Your task to perform on an android device: turn on translation in the chrome app Image 0: 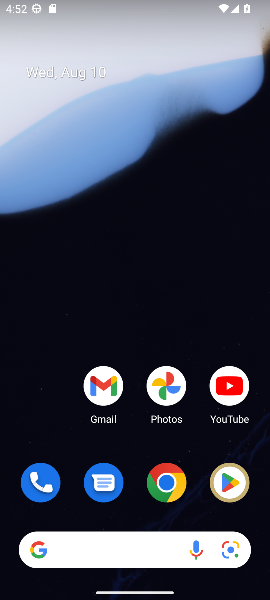
Step 0: click (166, 480)
Your task to perform on an android device: turn on translation in the chrome app Image 1: 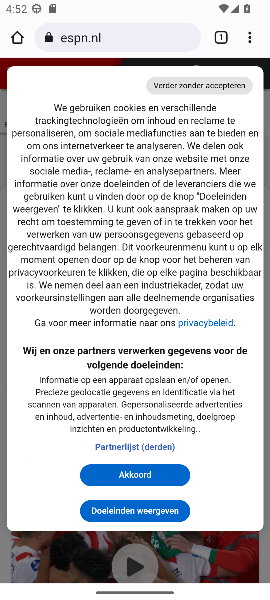
Step 1: click (247, 31)
Your task to perform on an android device: turn on translation in the chrome app Image 2: 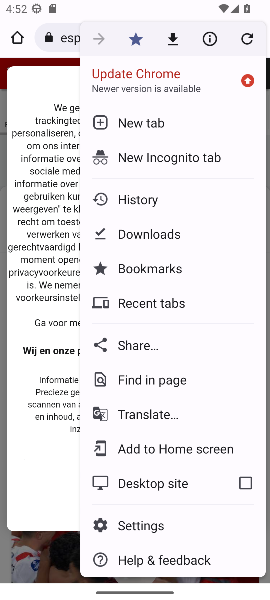
Step 2: click (156, 527)
Your task to perform on an android device: turn on translation in the chrome app Image 3: 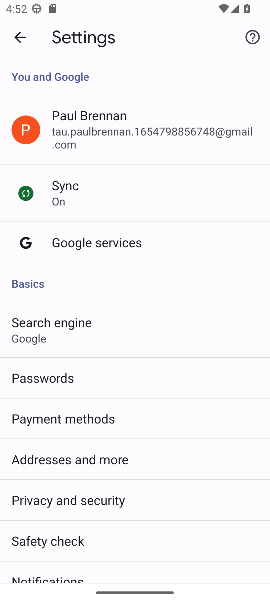
Step 3: drag from (168, 490) to (217, 1)
Your task to perform on an android device: turn on translation in the chrome app Image 4: 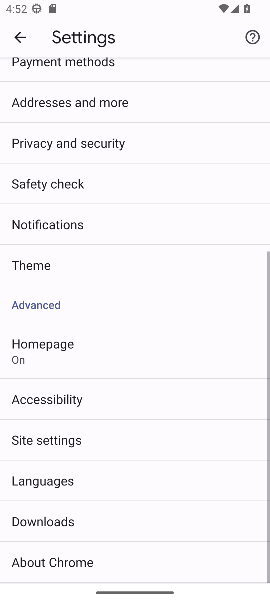
Step 4: click (145, 485)
Your task to perform on an android device: turn on translation in the chrome app Image 5: 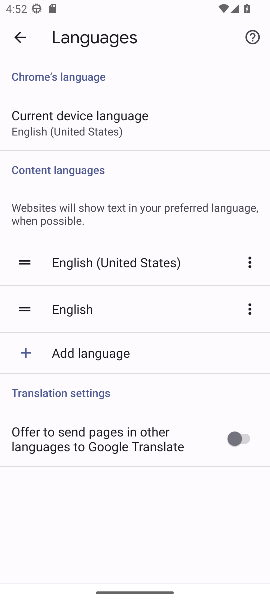
Step 5: click (241, 435)
Your task to perform on an android device: turn on translation in the chrome app Image 6: 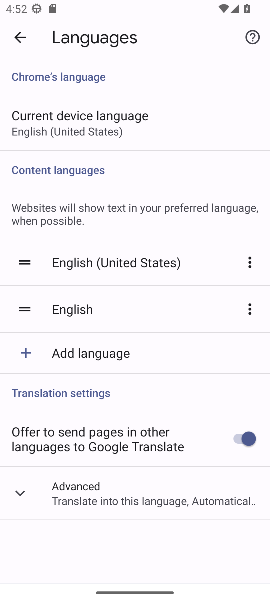
Step 6: task complete